Your task to perform on an android device: check the backup settings in the google photos Image 0: 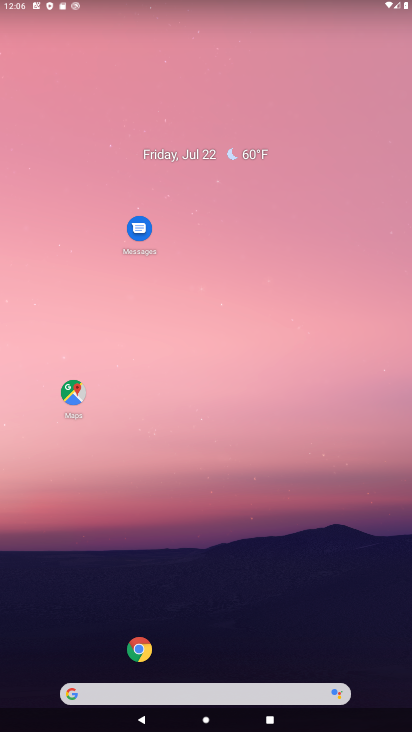
Step 0: drag from (20, 682) to (94, 278)
Your task to perform on an android device: check the backup settings in the google photos Image 1: 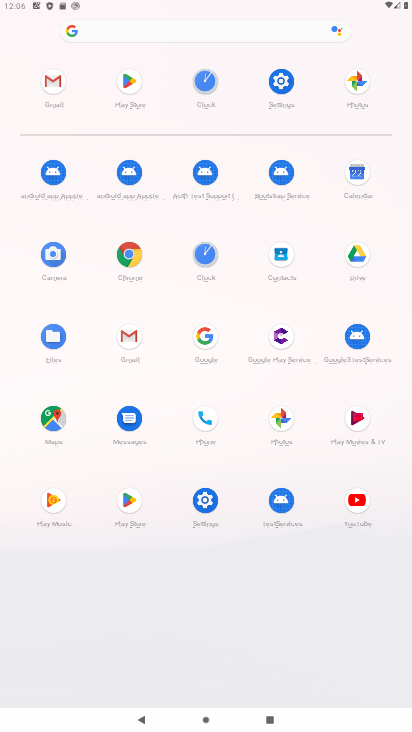
Step 1: click (280, 427)
Your task to perform on an android device: check the backup settings in the google photos Image 2: 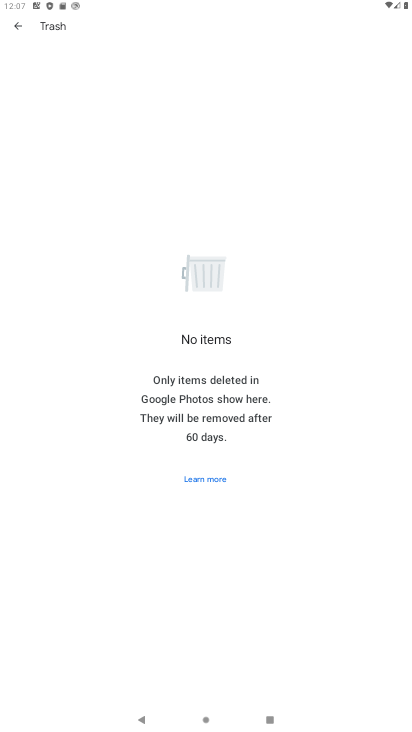
Step 2: click (21, 27)
Your task to perform on an android device: check the backup settings in the google photos Image 3: 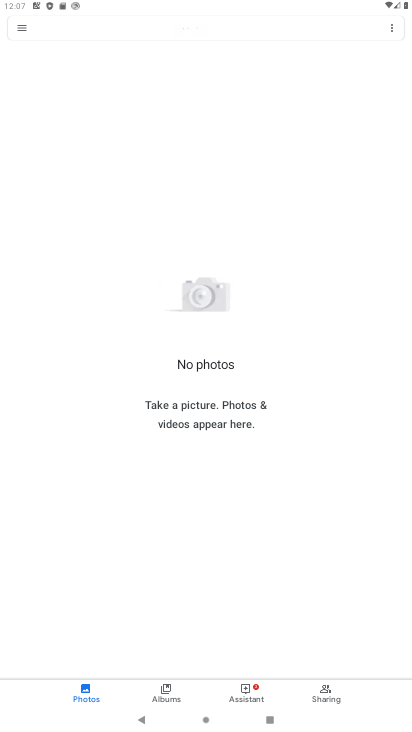
Step 3: click (21, 26)
Your task to perform on an android device: check the backup settings in the google photos Image 4: 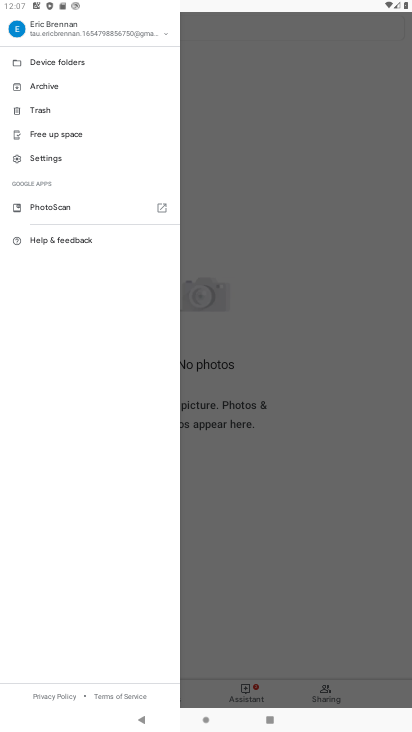
Step 4: click (58, 155)
Your task to perform on an android device: check the backup settings in the google photos Image 5: 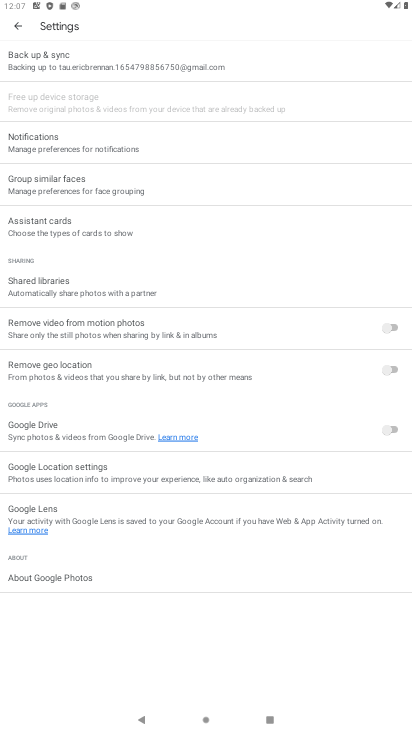
Step 5: click (93, 53)
Your task to perform on an android device: check the backup settings in the google photos Image 6: 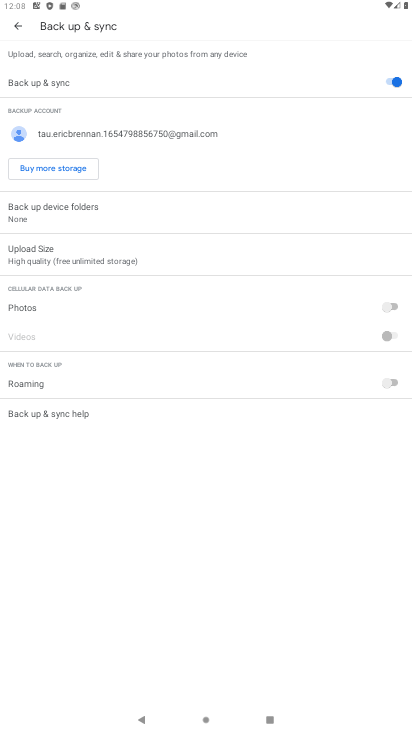
Step 6: task complete